Your task to perform on an android device: find snoozed emails in the gmail app Image 0: 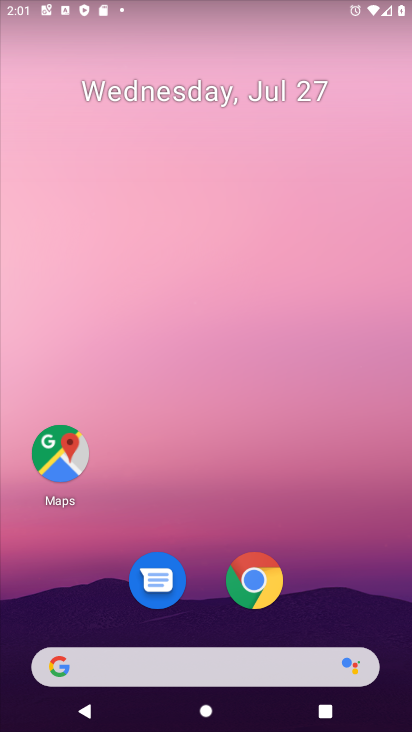
Step 0: drag from (234, 679) to (257, 177)
Your task to perform on an android device: find snoozed emails in the gmail app Image 1: 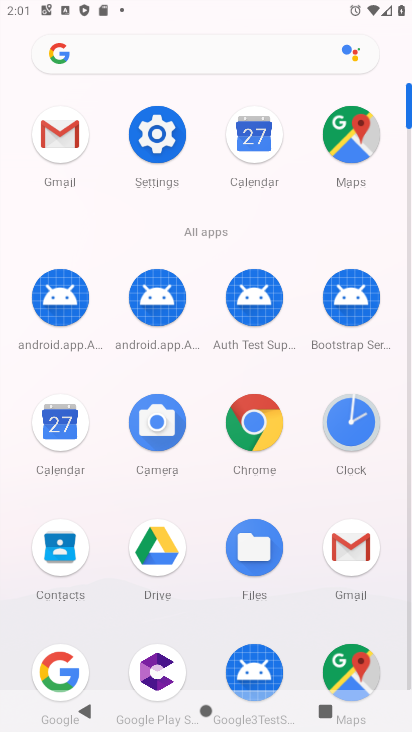
Step 1: click (348, 570)
Your task to perform on an android device: find snoozed emails in the gmail app Image 2: 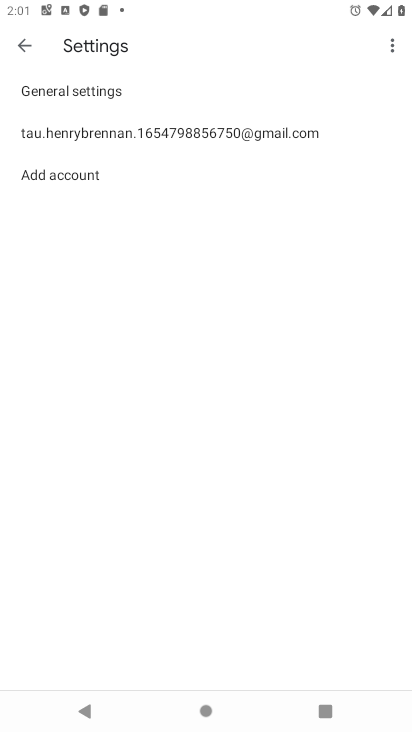
Step 2: click (32, 50)
Your task to perform on an android device: find snoozed emails in the gmail app Image 3: 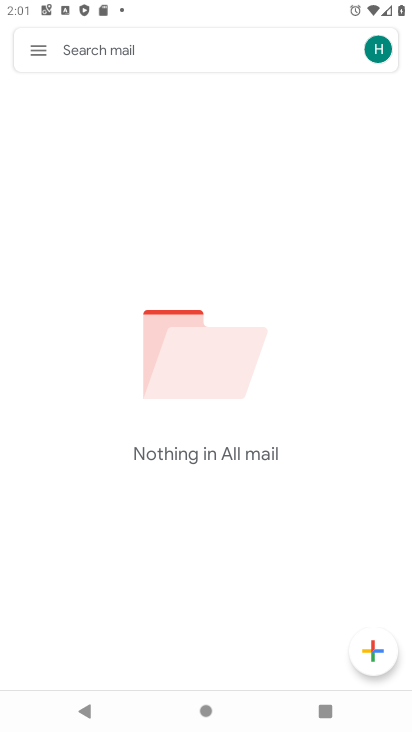
Step 3: click (41, 57)
Your task to perform on an android device: find snoozed emails in the gmail app Image 4: 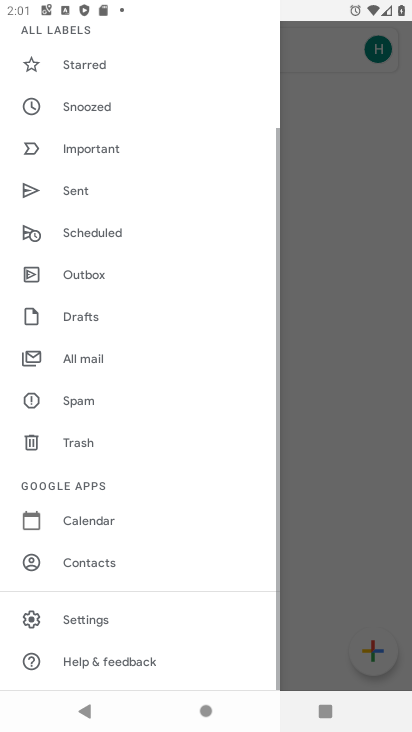
Step 4: click (94, 114)
Your task to perform on an android device: find snoozed emails in the gmail app Image 5: 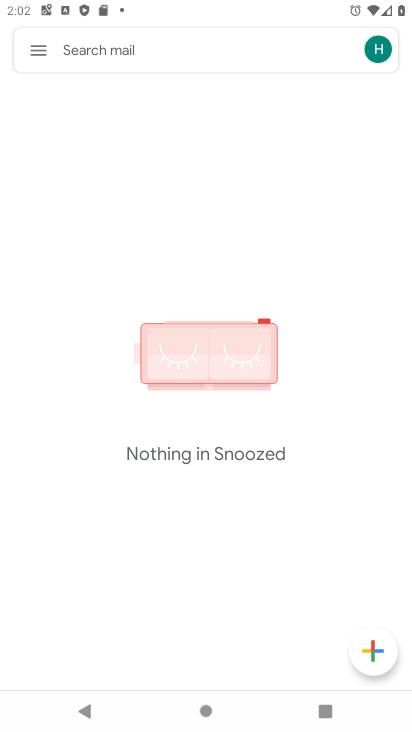
Step 5: task complete